Your task to perform on an android device: Clear all items from cart on ebay.com. Search for alienware aurora on ebay.com, select the first entry, and add it to the cart. Image 0: 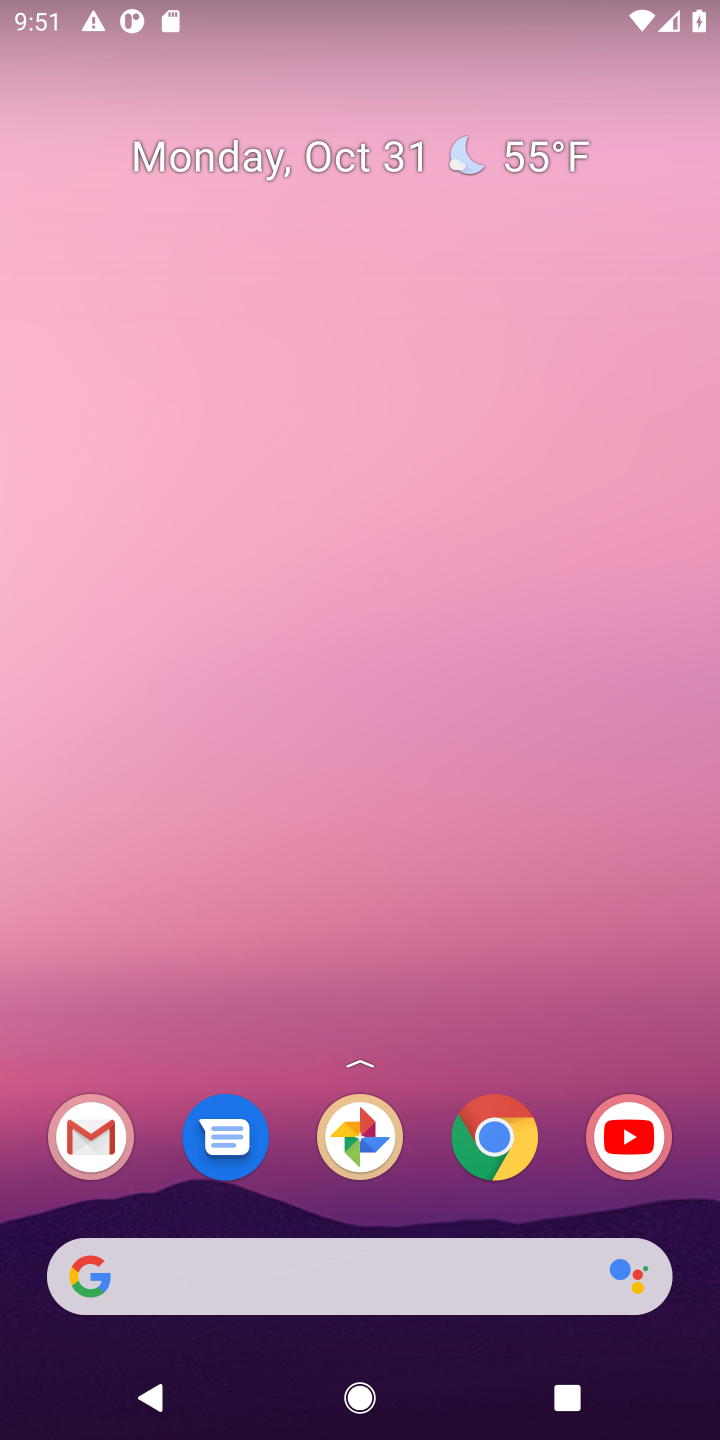
Step 0: click (501, 1148)
Your task to perform on an android device: Clear all items from cart on ebay.com. Search for alienware aurora on ebay.com, select the first entry, and add it to the cart. Image 1: 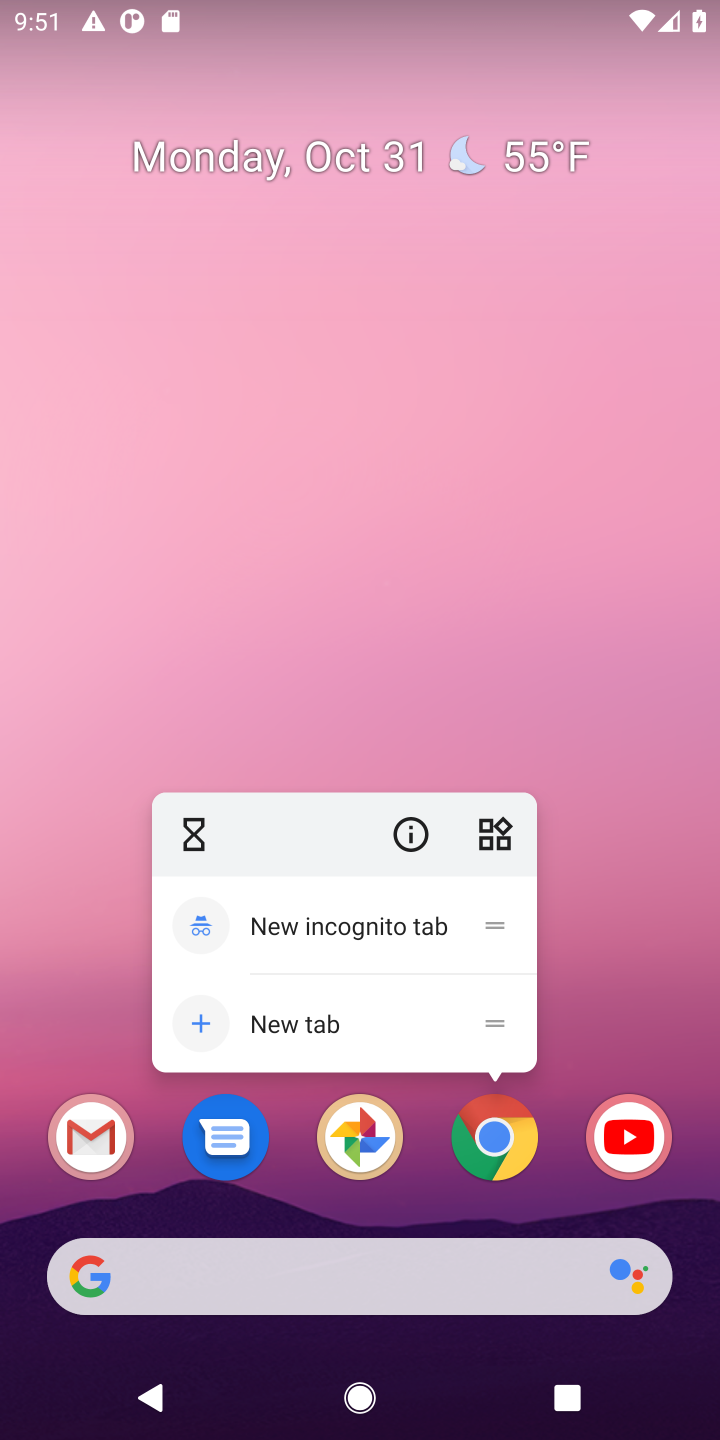
Step 1: click (501, 1148)
Your task to perform on an android device: Clear all items from cart on ebay.com. Search for alienware aurora on ebay.com, select the first entry, and add it to the cart. Image 2: 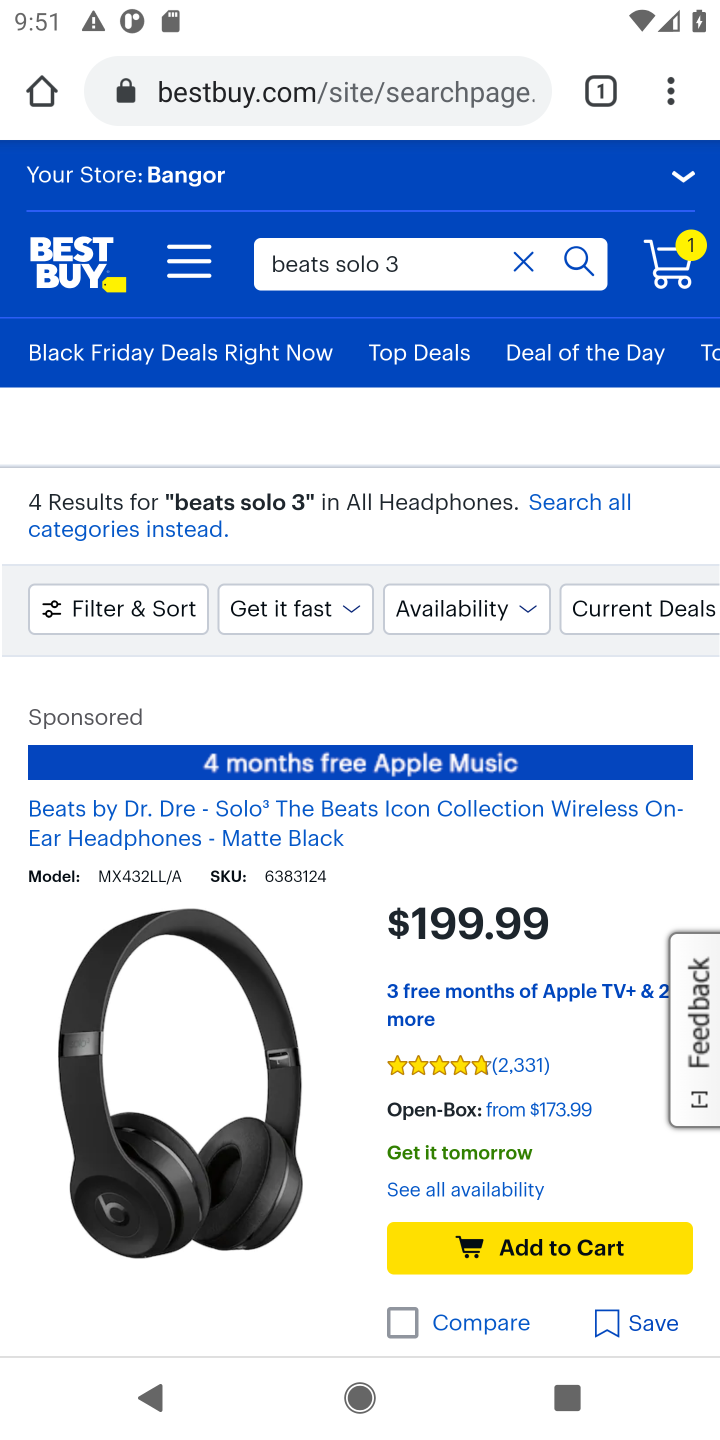
Step 2: click (680, 256)
Your task to perform on an android device: Clear all items from cart on ebay.com. Search for alienware aurora on ebay.com, select the first entry, and add it to the cart. Image 3: 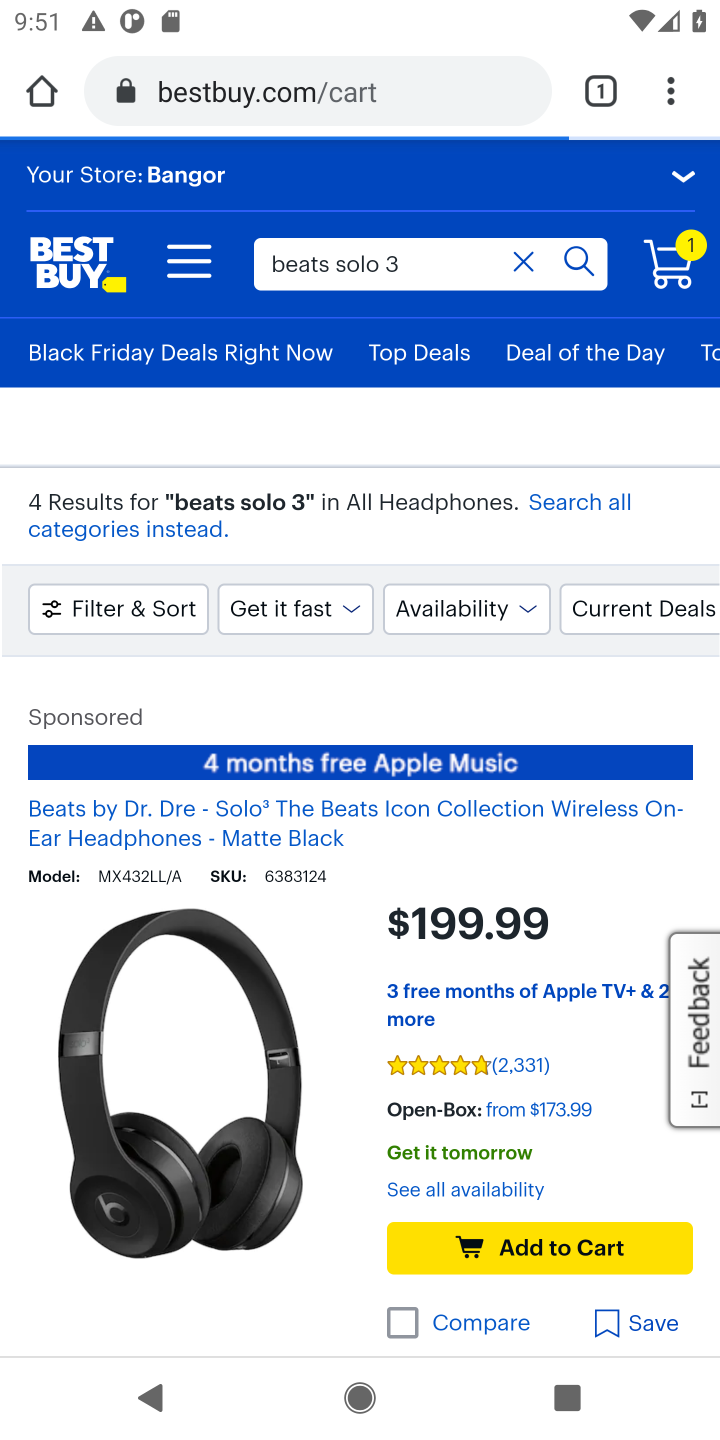
Step 3: click (675, 263)
Your task to perform on an android device: Clear all items from cart on ebay.com. Search for alienware aurora on ebay.com, select the first entry, and add it to the cart. Image 4: 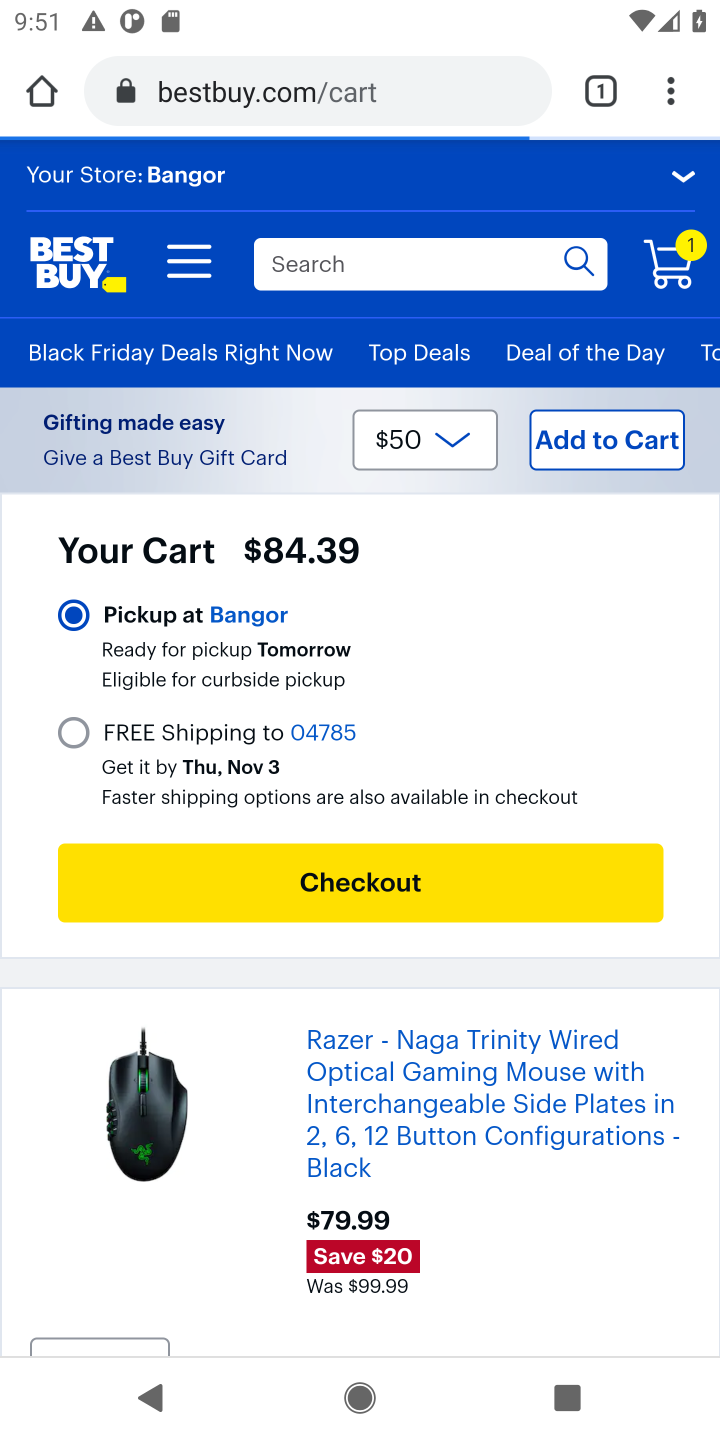
Step 4: drag from (325, 731) to (349, 358)
Your task to perform on an android device: Clear all items from cart on ebay.com. Search for alienware aurora on ebay.com, select the first entry, and add it to the cart. Image 5: 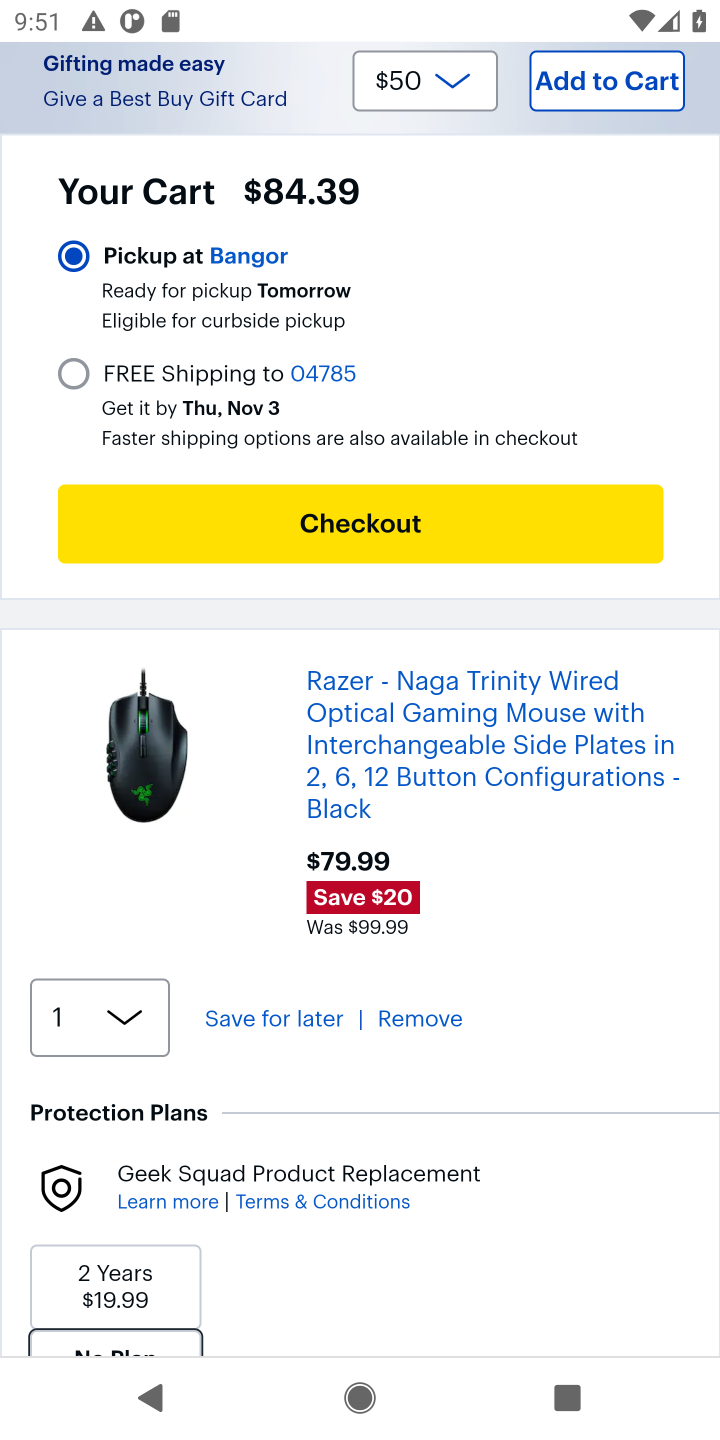
Step 5: drag from (323, 1030) to (365, 519)
Your task to perform on an android device: Clear all items from cart on ebay.com. Search for alienware aurora on ebay.com, select the first entry, and add it to the cart. Image 6: 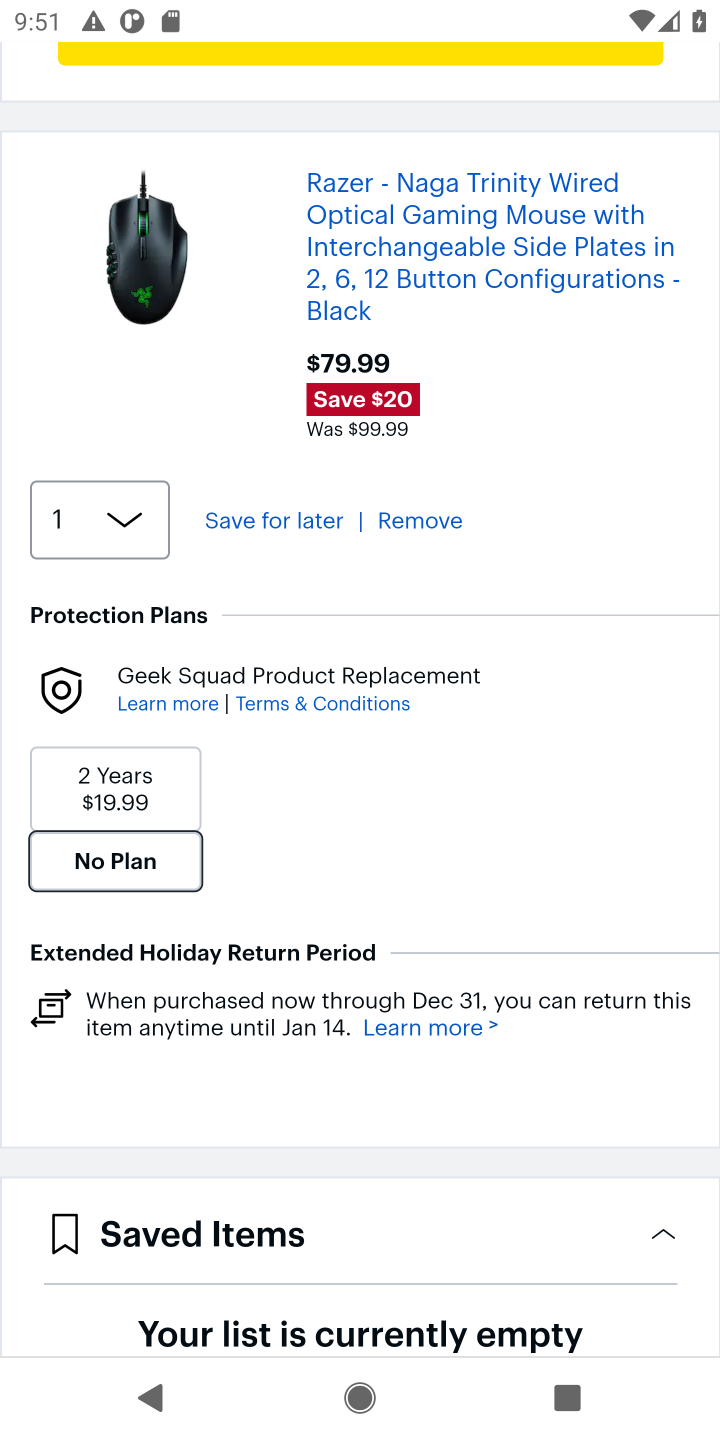
Step 6: click (293, 1001)
Your task to perform on an android device: Clear all items from cart on ebay.com. Search for alienware aurora on ebay.com, select the first entry, and add it to the cart. Image 7: 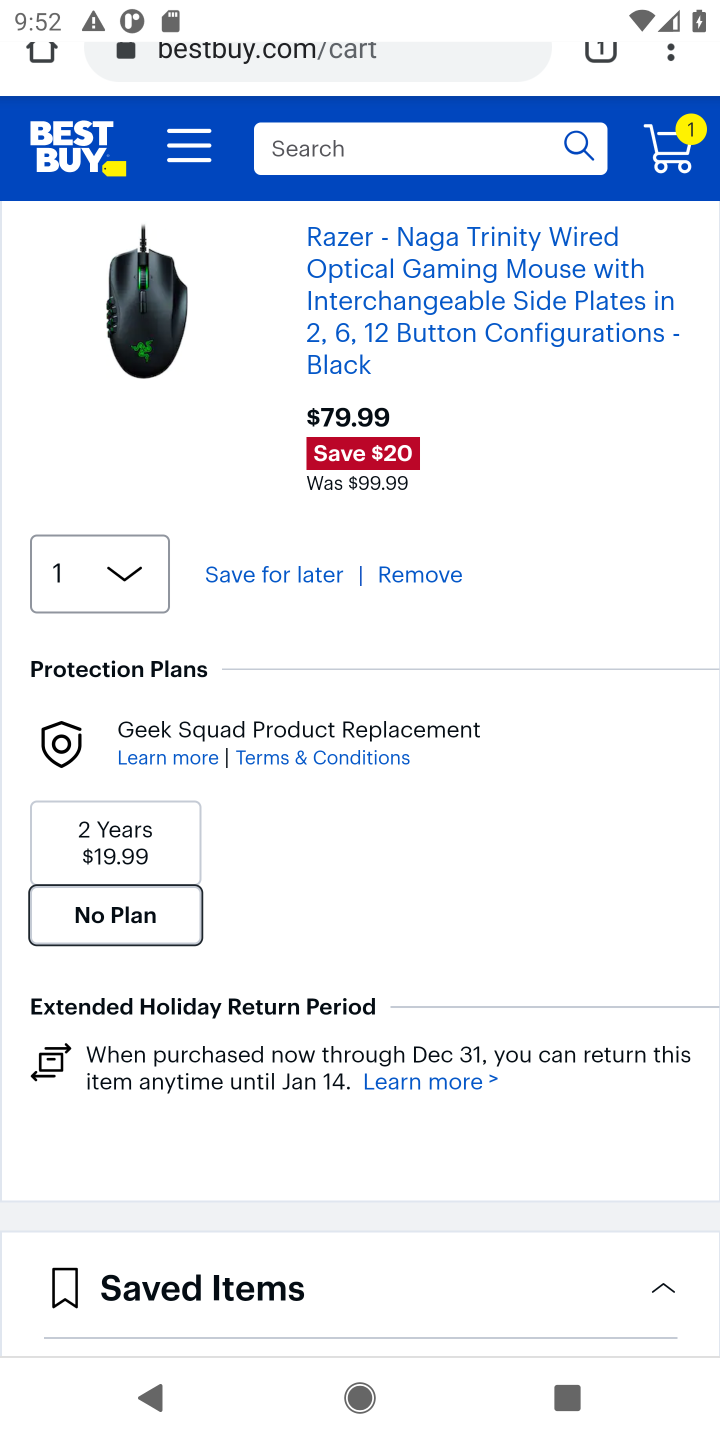
Step 7: click (427, 577)
Your task to perform on an android device: Clear all items from cart on ebay.com. Search for alienware aurora on ebay.com, select the first entry, and add it to the cart. Image 8: 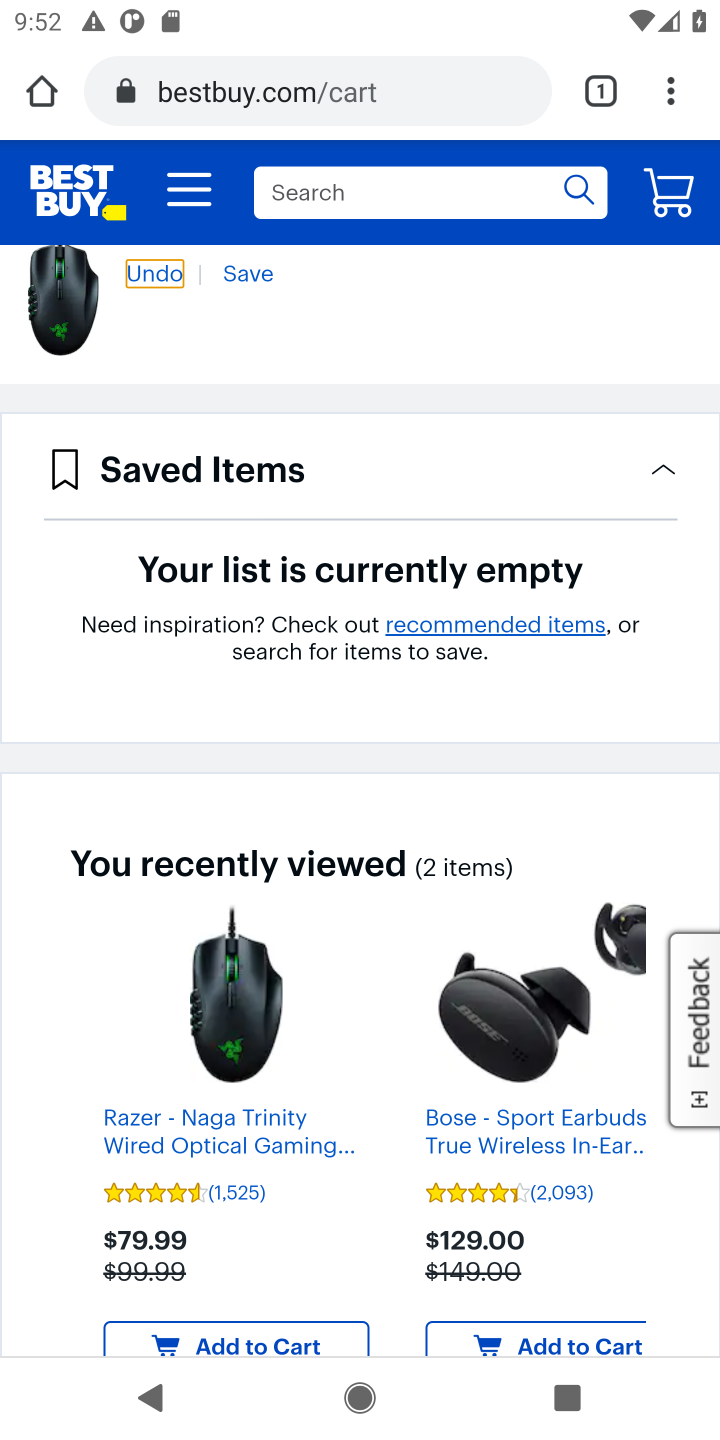
Step 8: click (357, 215)
Your task to perform on an android device: Clear all items from cart on ebay.com. Search for alienware aurora on ebay.com, select the first entry, and add it to the cart. Image 9: 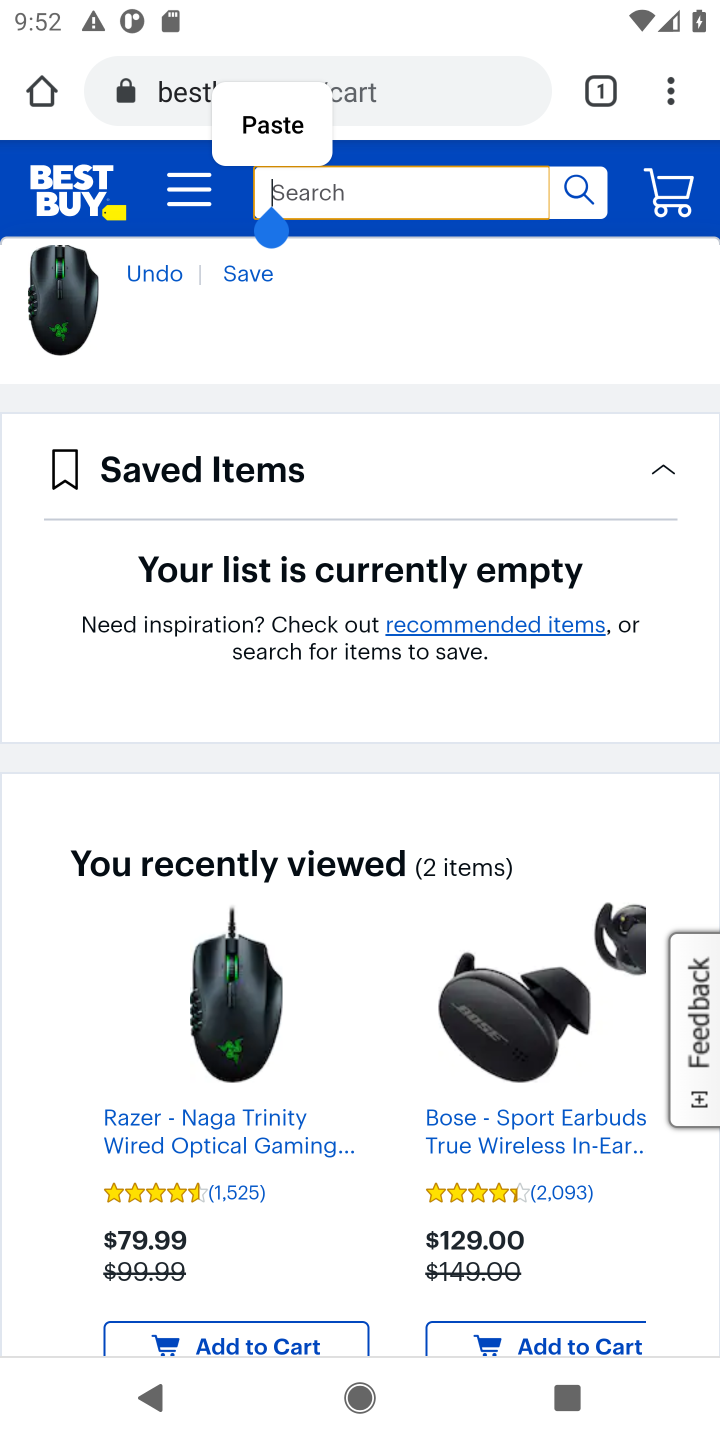
Step 9: type "alienware aurora"
Your task to perform on an android device: Clear all items from cart on ebay.com. Search for alienware aurora on ebay.com, select the first entry, and add it to the cart. Image 10: 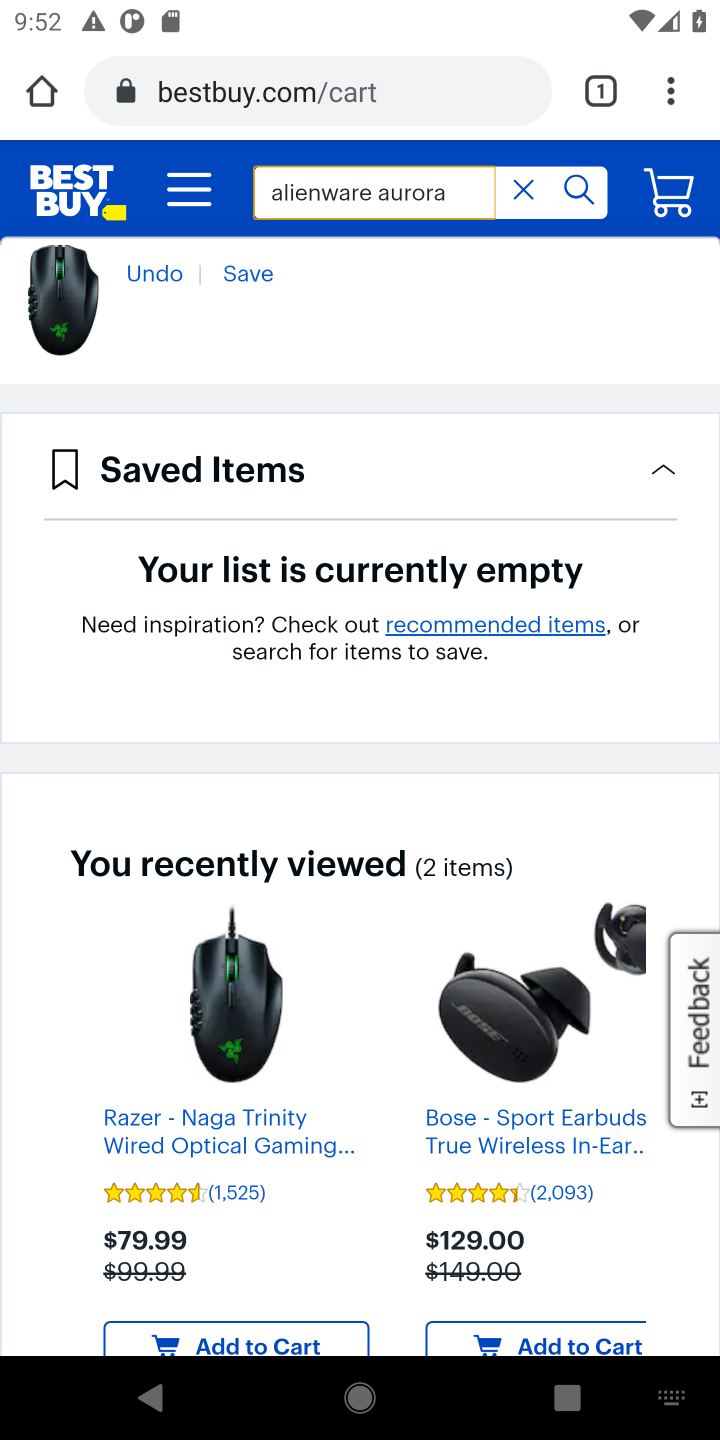
Step 10: click (580, 192)
Your task to perform on an android device: Clear all items from cart on ebay.com. Search for alienware aurora on ebay.com, select the first entry, and add it to the cart. Image 11: 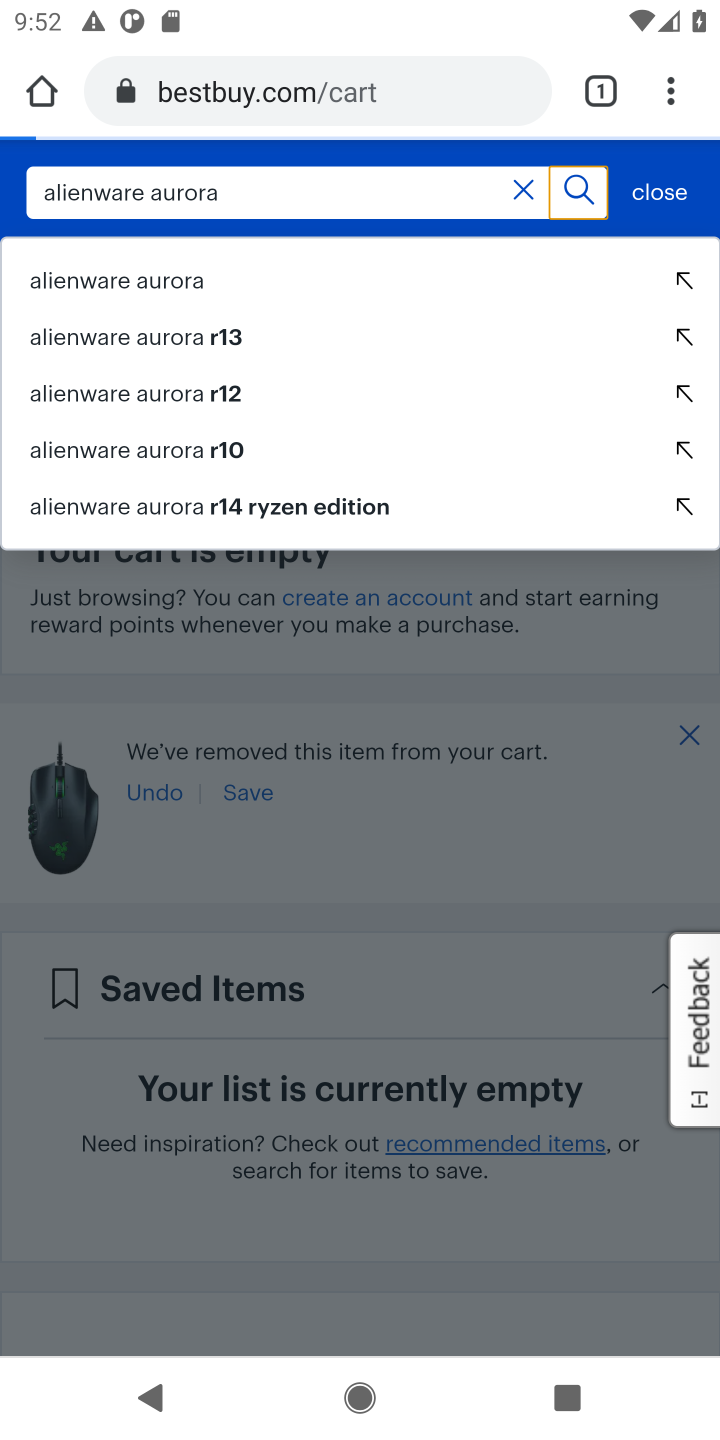
Step 11: click (186, 278)
Your task to perform on an android device: Clear all items from cart on ebay.com. Search for alienware aurora on ebay.com, select the first entry, and add it to the cart. Image 12: 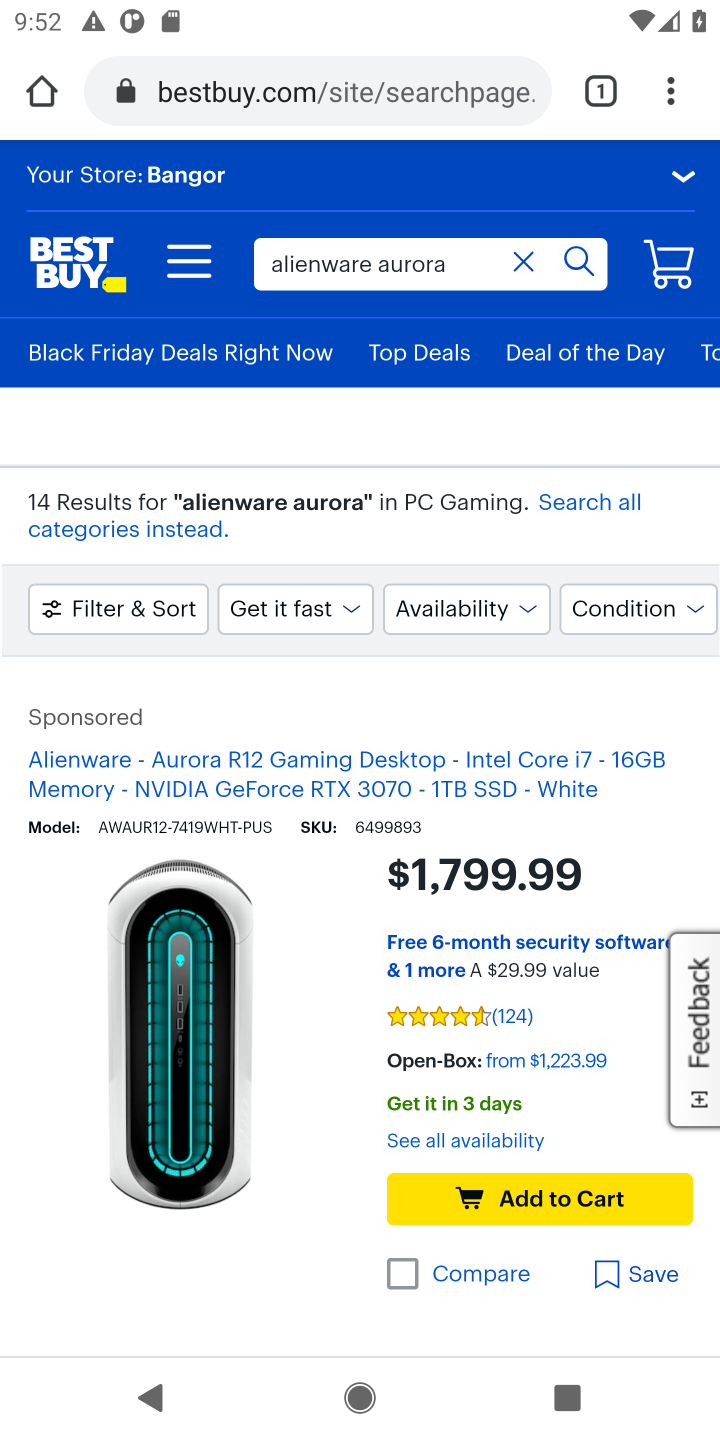
Step 12: click (442, 1022)
Your task to perform on an android device: Clear all items from cart on ebay.com. Search for alienware aurora on ebay.com, select the first entry, and add it to the cart. Image 13: 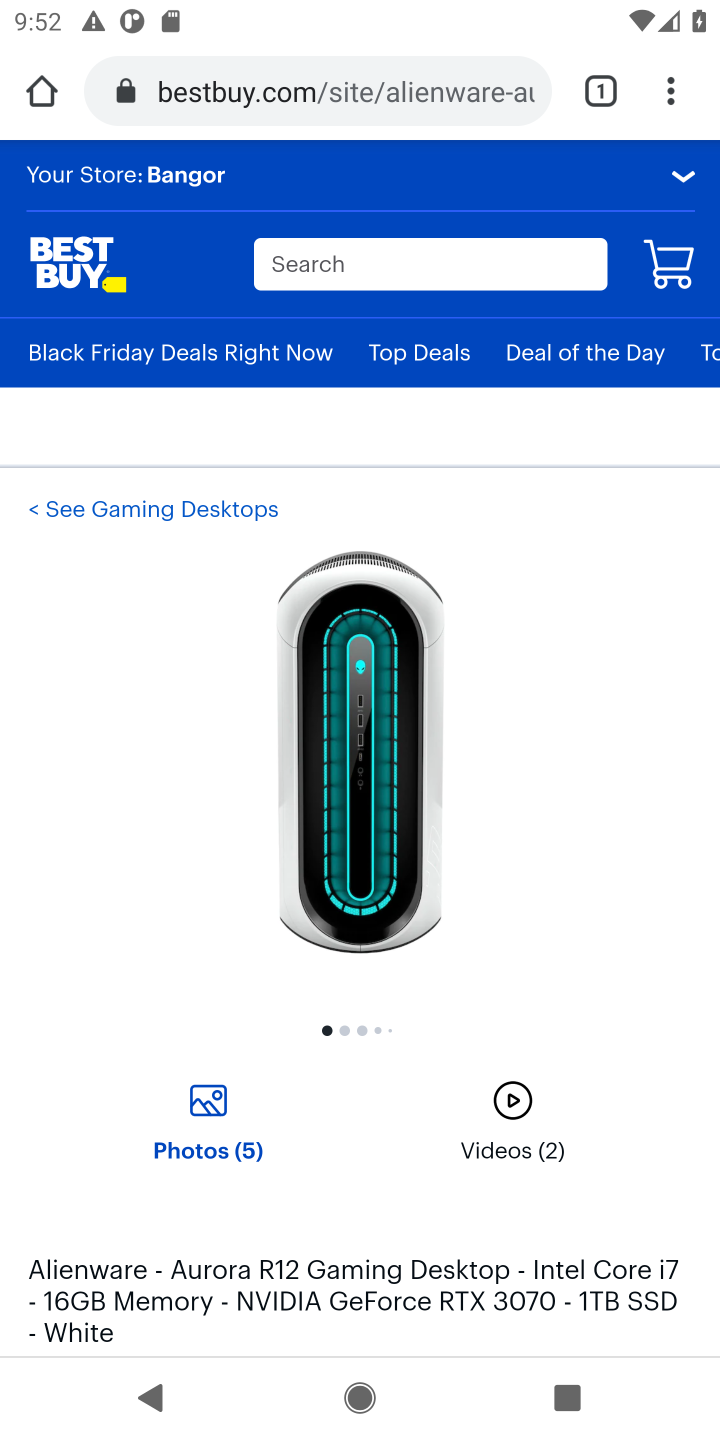
Step 13: drag from (350, 1097) to (374, 363)
Your task to perform on an android device: Clear all items from cart on ebay.com. Search for alienware aurora on ebay.com, select the first entry, and add it to the cart. Image 14: 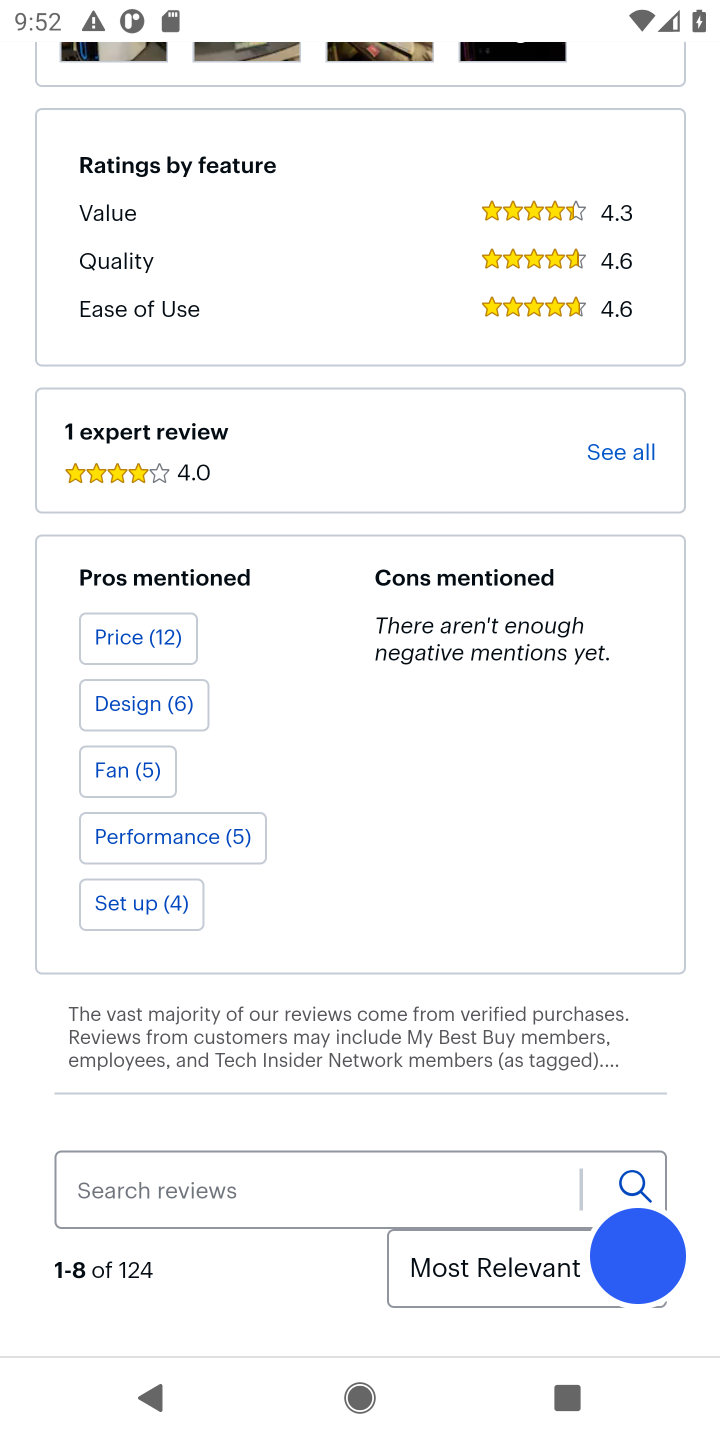
Step 14: drag from (338, 1026) to (320, 355)
Your task to perform on an android device: Clear all items from cart on ebay.com. Search for alienware aurora on ebay.com, select the first entry, and add it to the cart. Image 15: 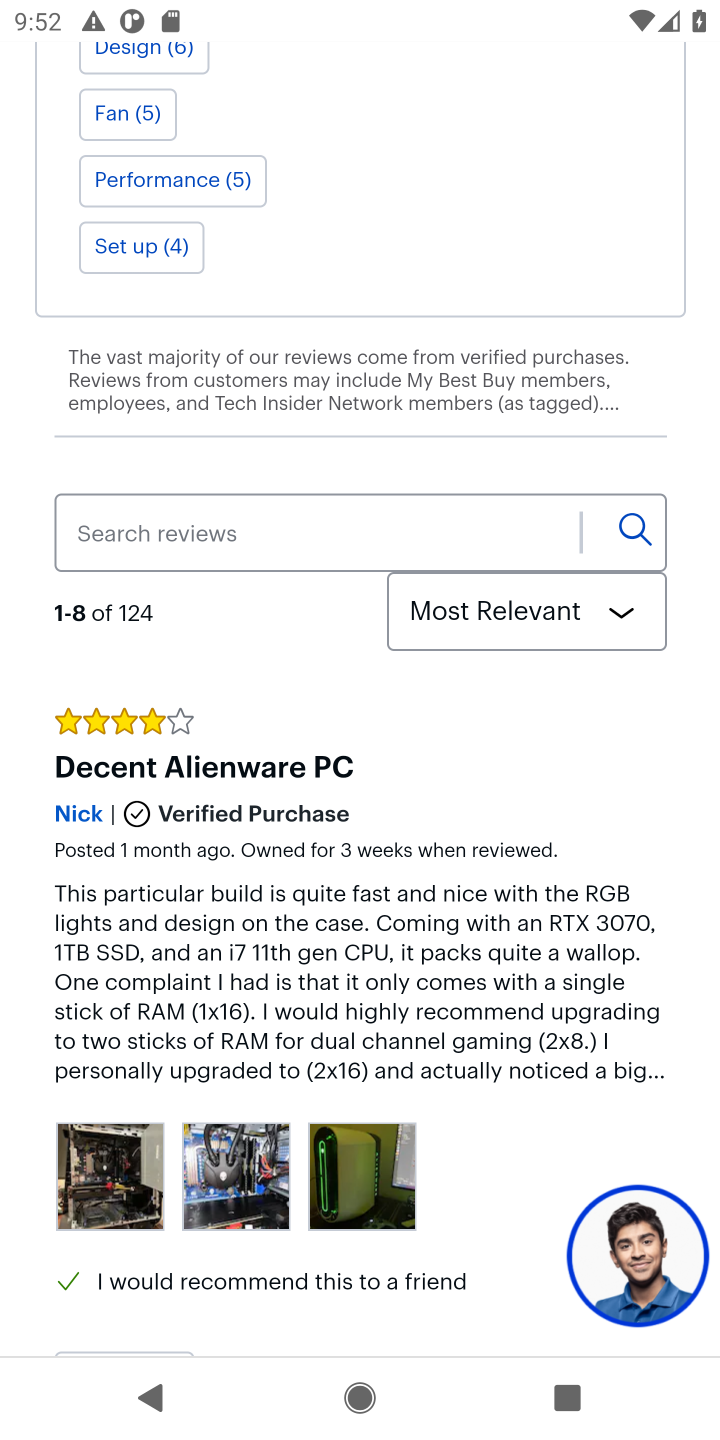
Step 15: drag from (330, 746) to (357, 266)
Your task to perform on an android device: Clear all items from cart on ebay.com. Search for alienware aurora on ebay.com, select the first entry, and add it to the cart. Image 16: 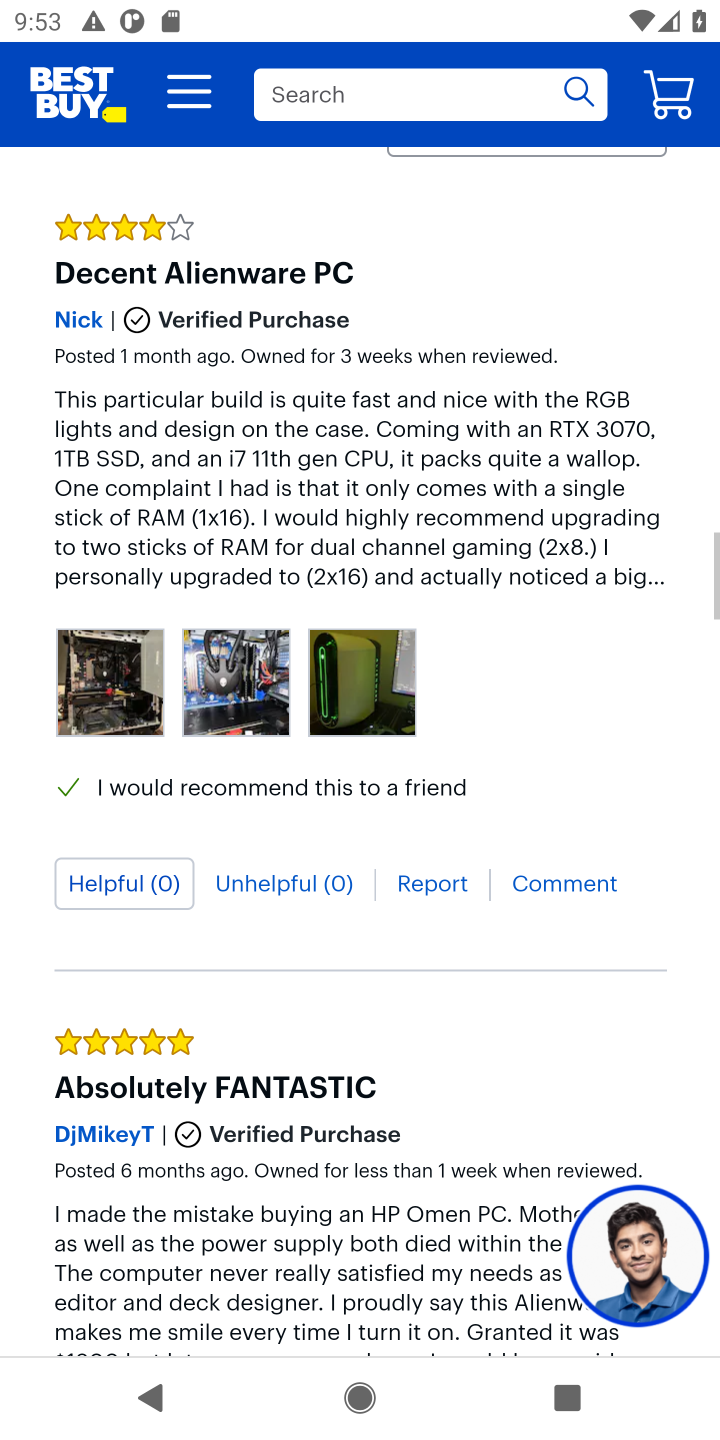
Step 16: drag from (336, 1020) to (338, 467)
Your task to perform on an android device: Clear all items from cart on ebay.com. Search for alienware aurora on ebay.com, select the first entry, and add it to the cart. Image 17: 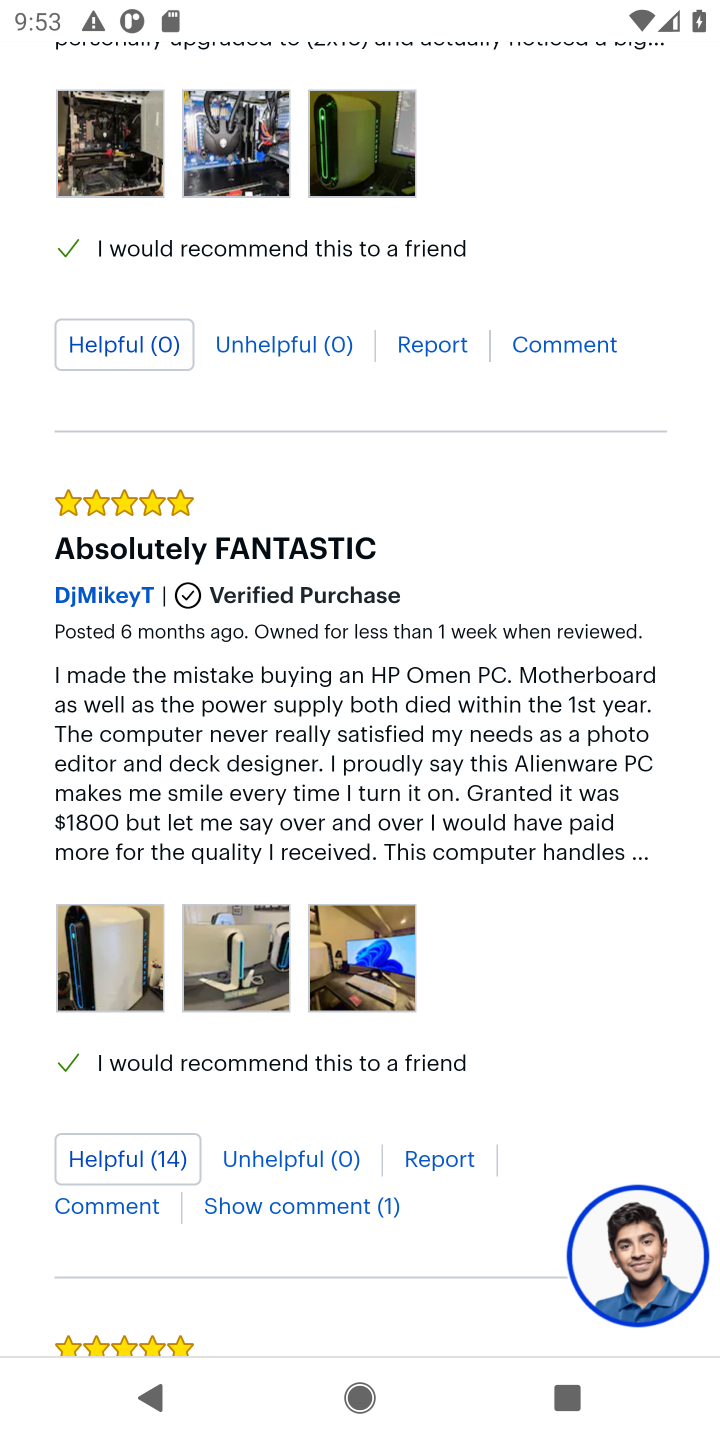
Step 17: drag from (395, 294) to (312, 1208)
Your task to perform on an android device: Clear all items from cart on ebay.com. Search for alienware aurora on ebay.com, select the first entry, and add it to the cart. Image 18: 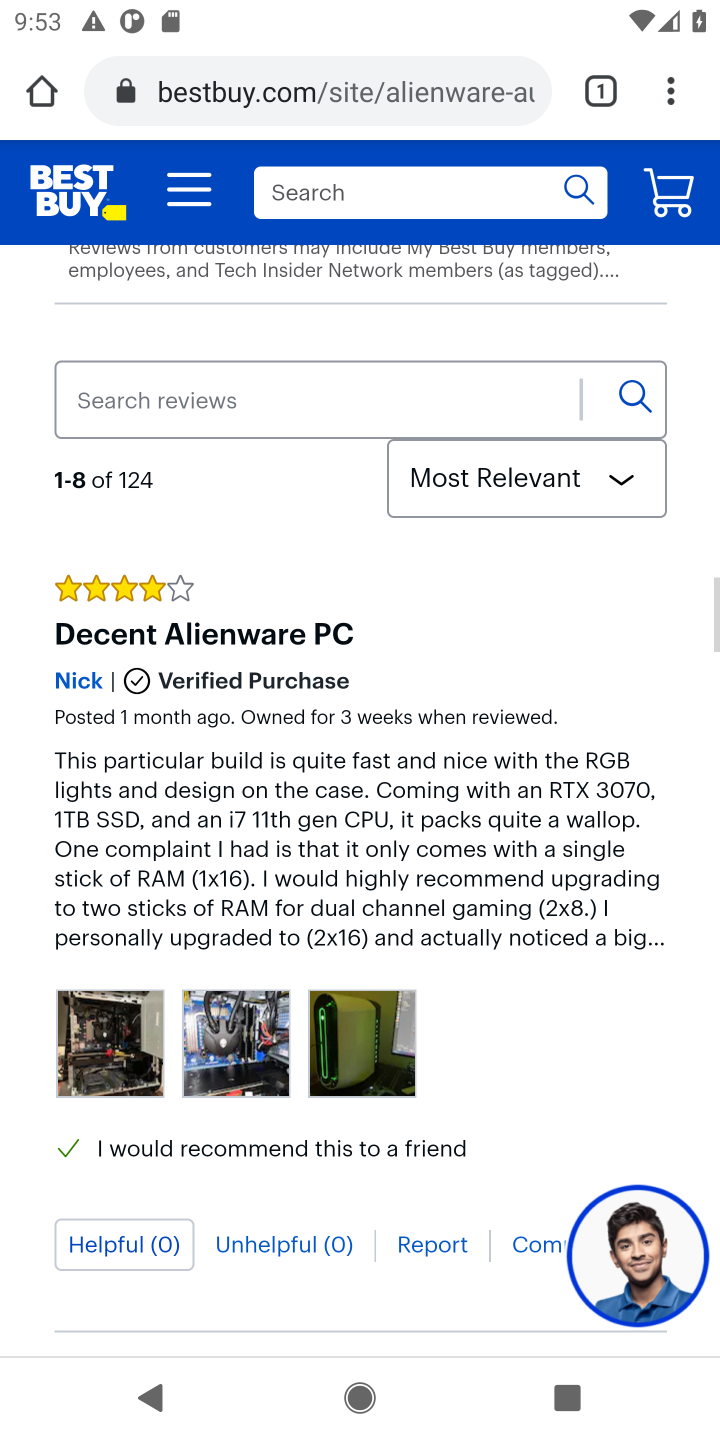
Step 18: drag from (364, 335) to (238, 1026)
Your task to perform on an android device: Clear all items from cart on ebay.com. Search for alienware aurora on ebay.com, select the first entry, and add it to the cart. Image 19: 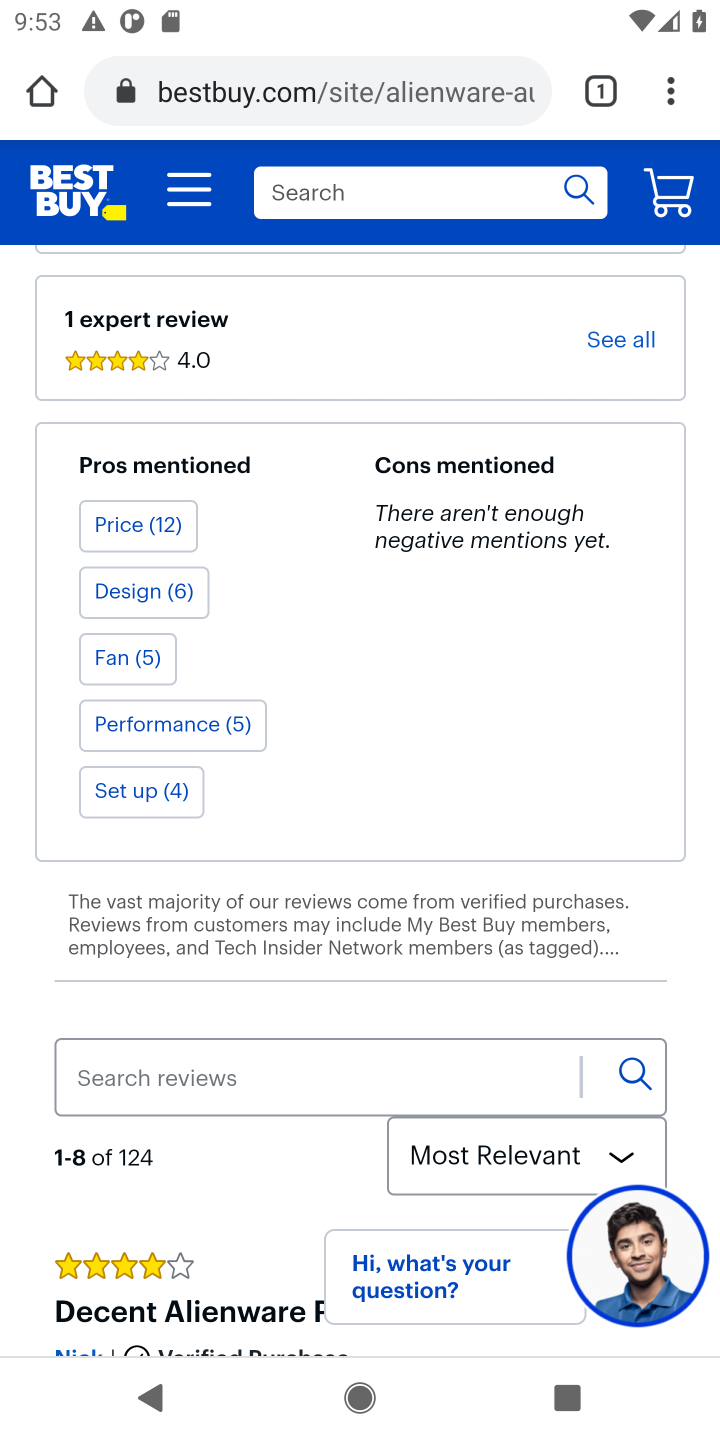
Step 19: drag from (318, 465) to (276, 1072)
Your task to perform on an android device: Clear all items from cart on ebay.com. Search for alienware aurora on ebay.com, select the first entry, and add it to the cart. Image 20: 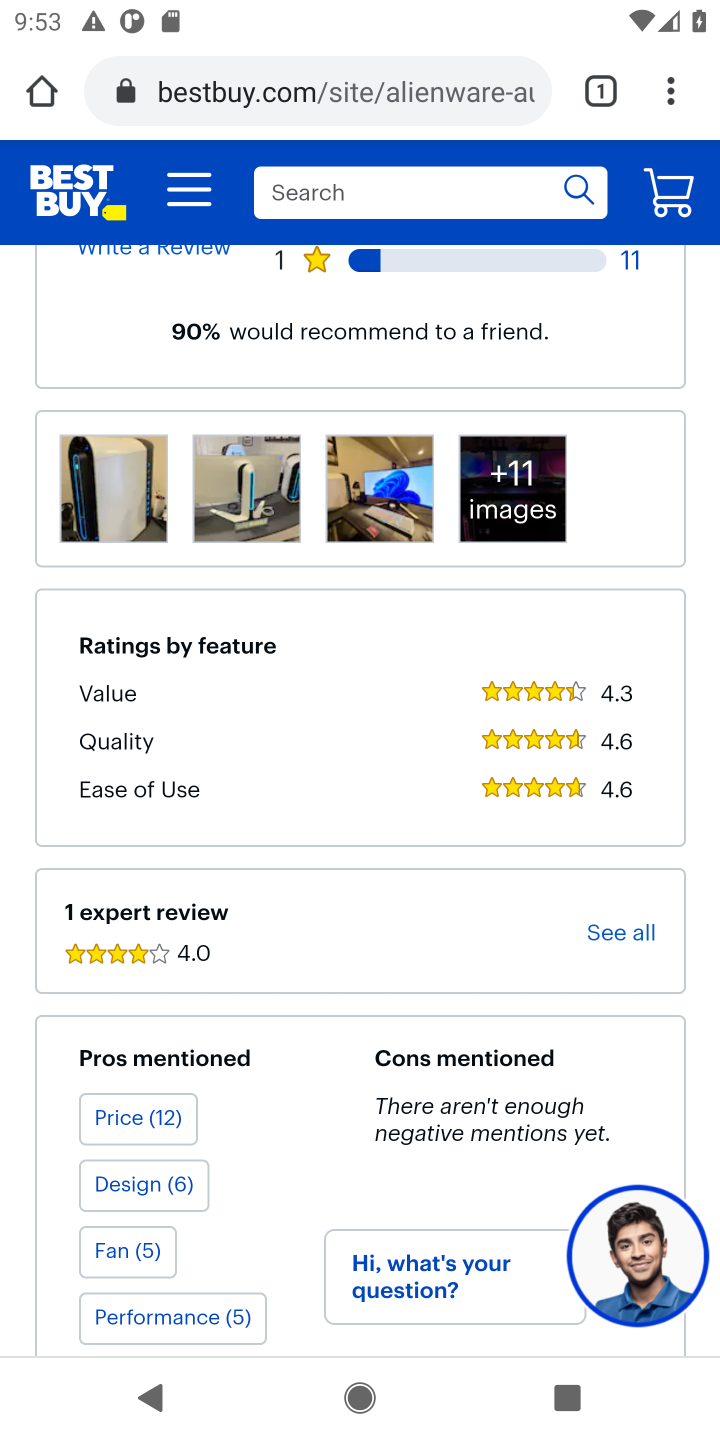
Step 20: drag from (291, 575) to (241, 1123)
Your task to perform on an android device: Clear all items from cart on ebay.com. Search for alienware aurora on ebay.com, select the first entry, and add it to the cart. Image 21: 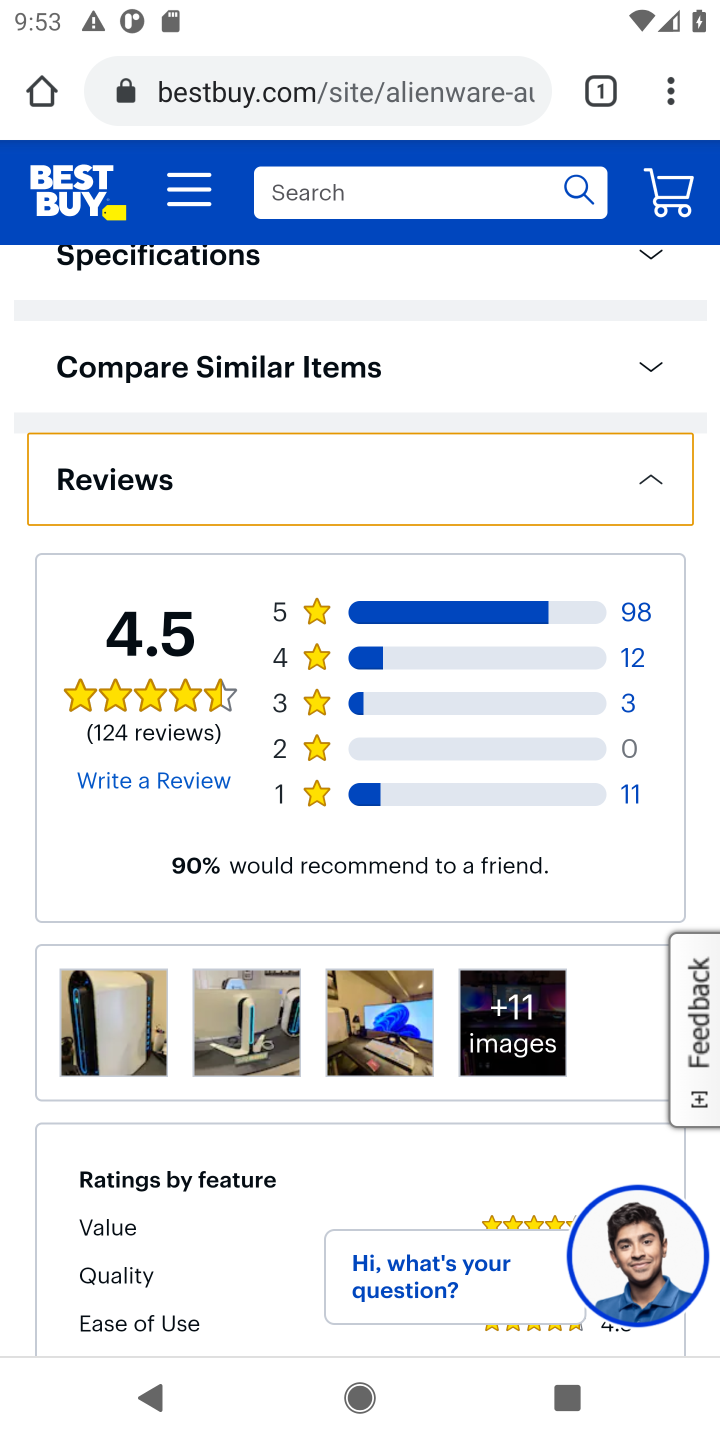
Step 21: drag from (338, 679) to (290, 1073)
Your task to perform on an android device: Clear all items from cart on ebay.com. Search for alienware aurora on ebay.com, select the first entry, and add it to the cart. Image 22: 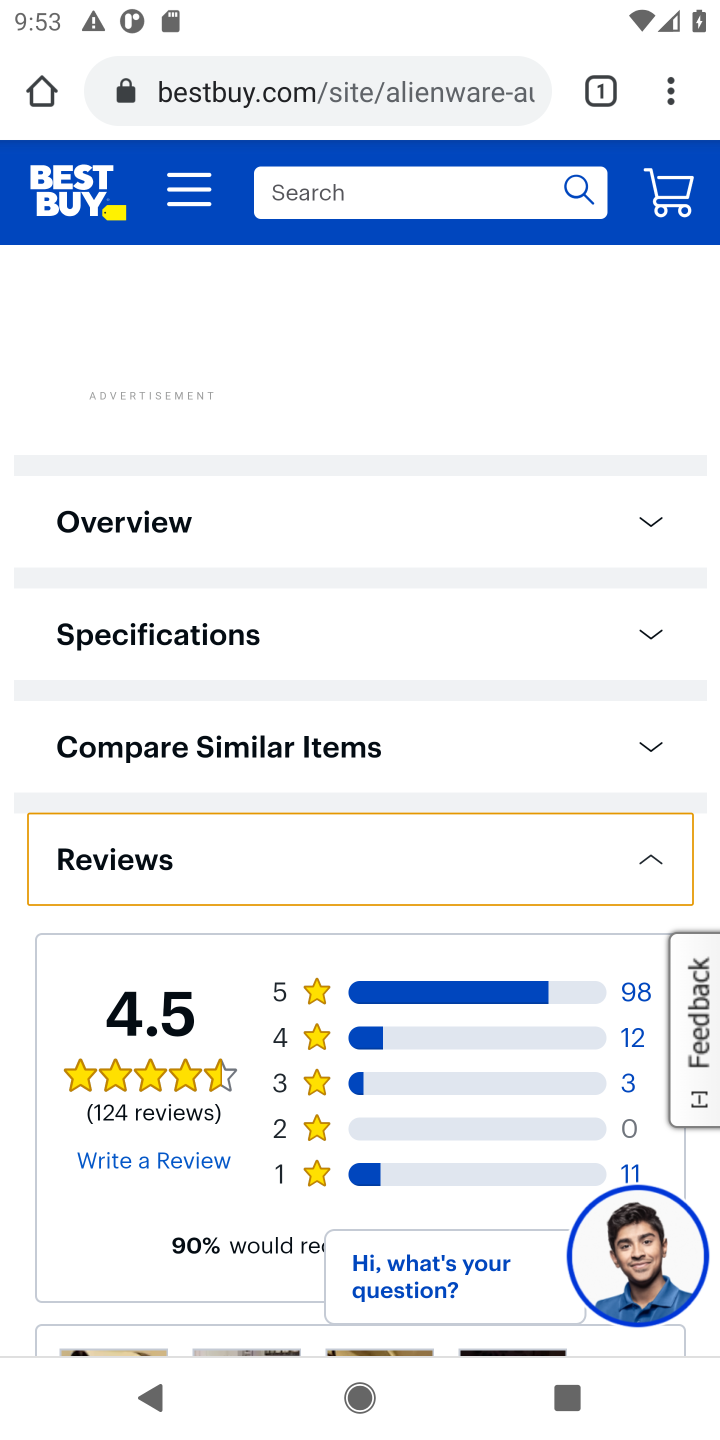
Step 22: drag from (273, 445) to (244, 953)
Your task to perform on an android device: Clear all items from cart on ebay.com. Search for alienware aurora on ebay.com, select the first entry, and add it to the cart. Image 23: 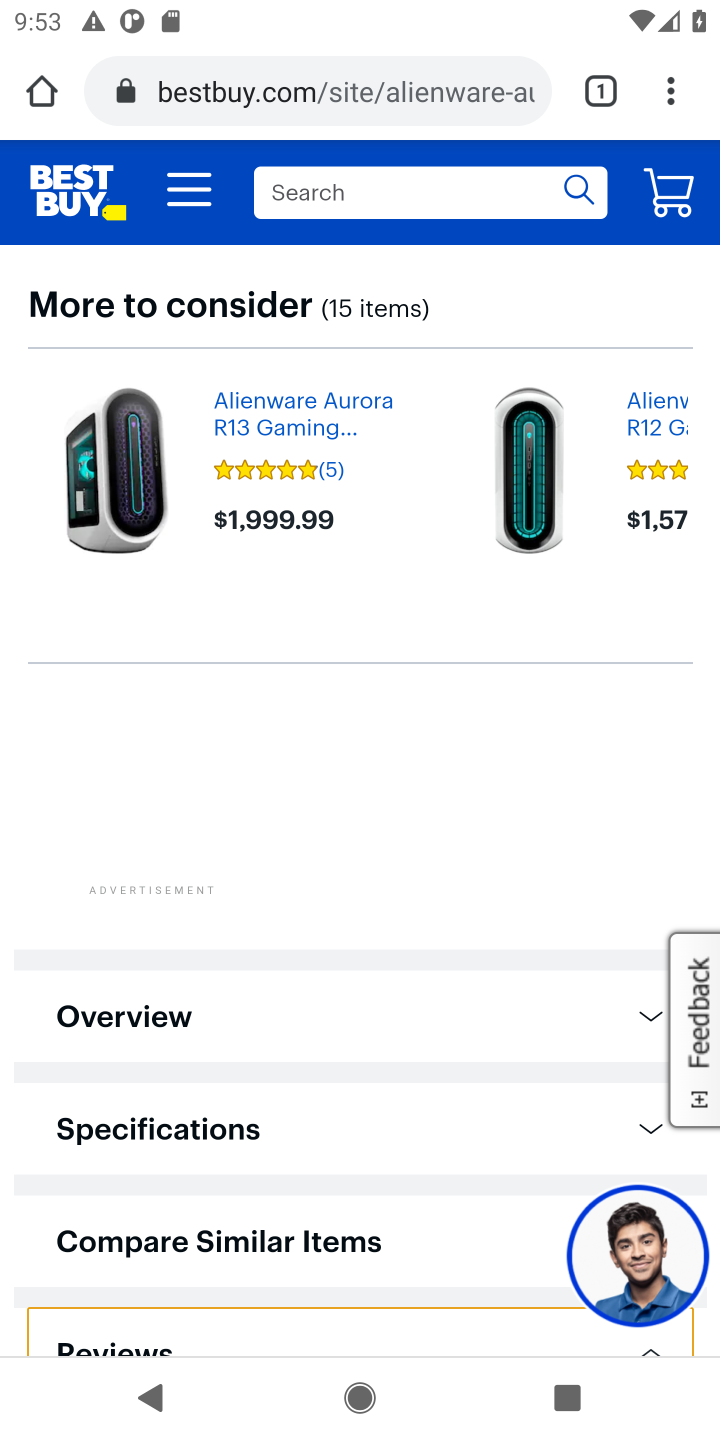
Step 23: drag from (346, 581) to (320, 1164)
Your task to perform on an android device: Clear all items from cart on ebay.com. Search for alienware aurora on ebay.com, select the first entry, and add it to the cart. Image 24: 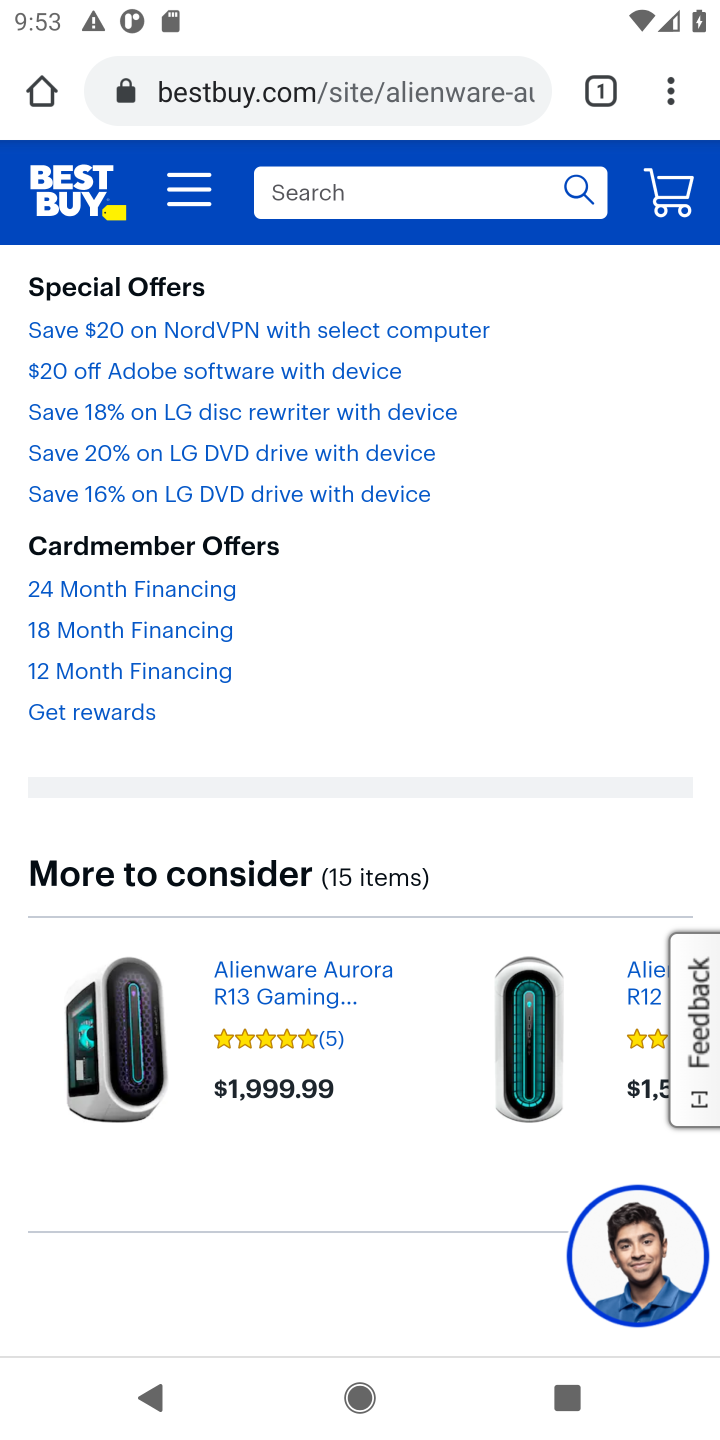
Step 24: drag from (266, 490) to (248, 1160)
Your task to perform on an android device: Clear all items from cart on ebay.com. Search for alienware aurora on ebay.com, select the first entry, and add it to the cart. Image 25: 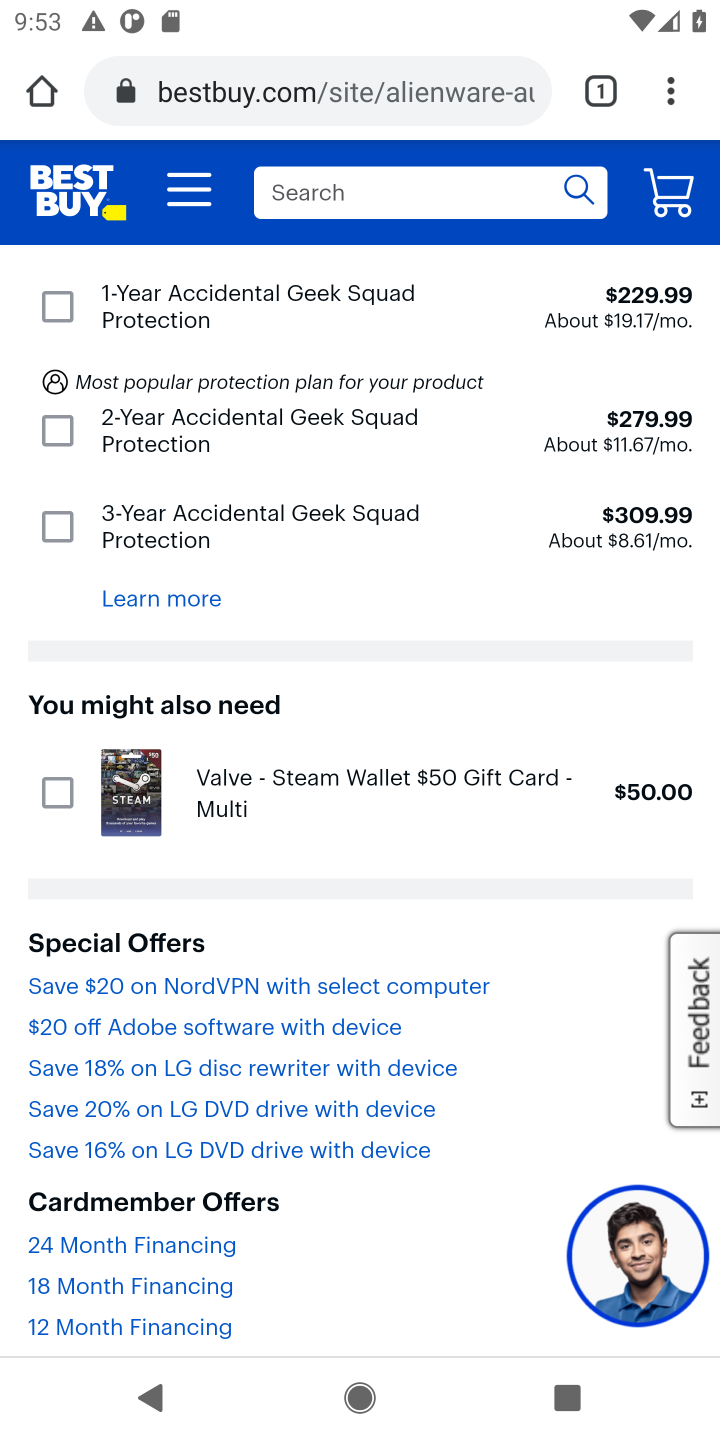
Step 25: drag from (349, 459) to (370, 995)
Your task to perform on an android device: Clear all items from cart on ebay.com. Search for alienware aurora on ebay.com, select the first entry, and add it to the cart. Image 26: 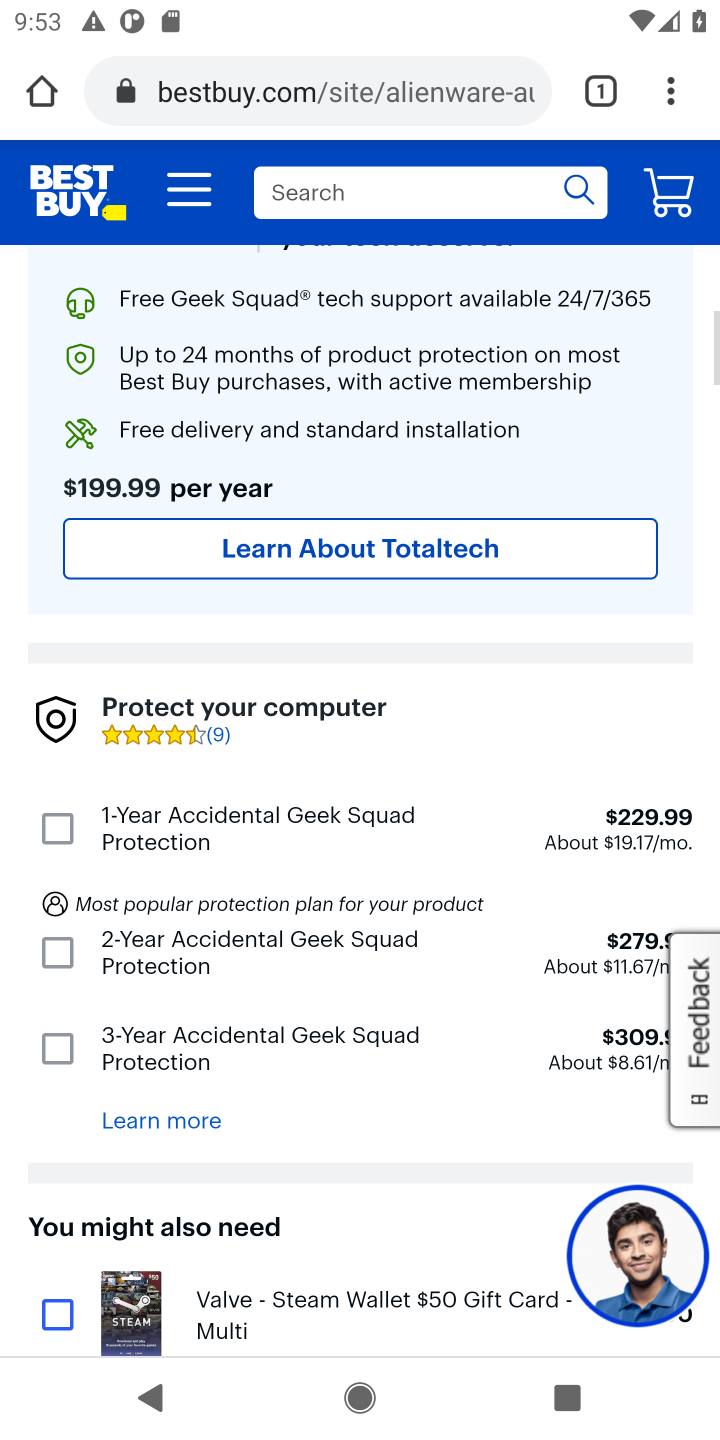
Step 26: drag from (313, 490) to (296, 1014)
Your task to perform on an android device: Clear all items from cart on ebay.com. Search for alienware aurora on ebay.com, select the first entry, and add it to the cart. Image 27: 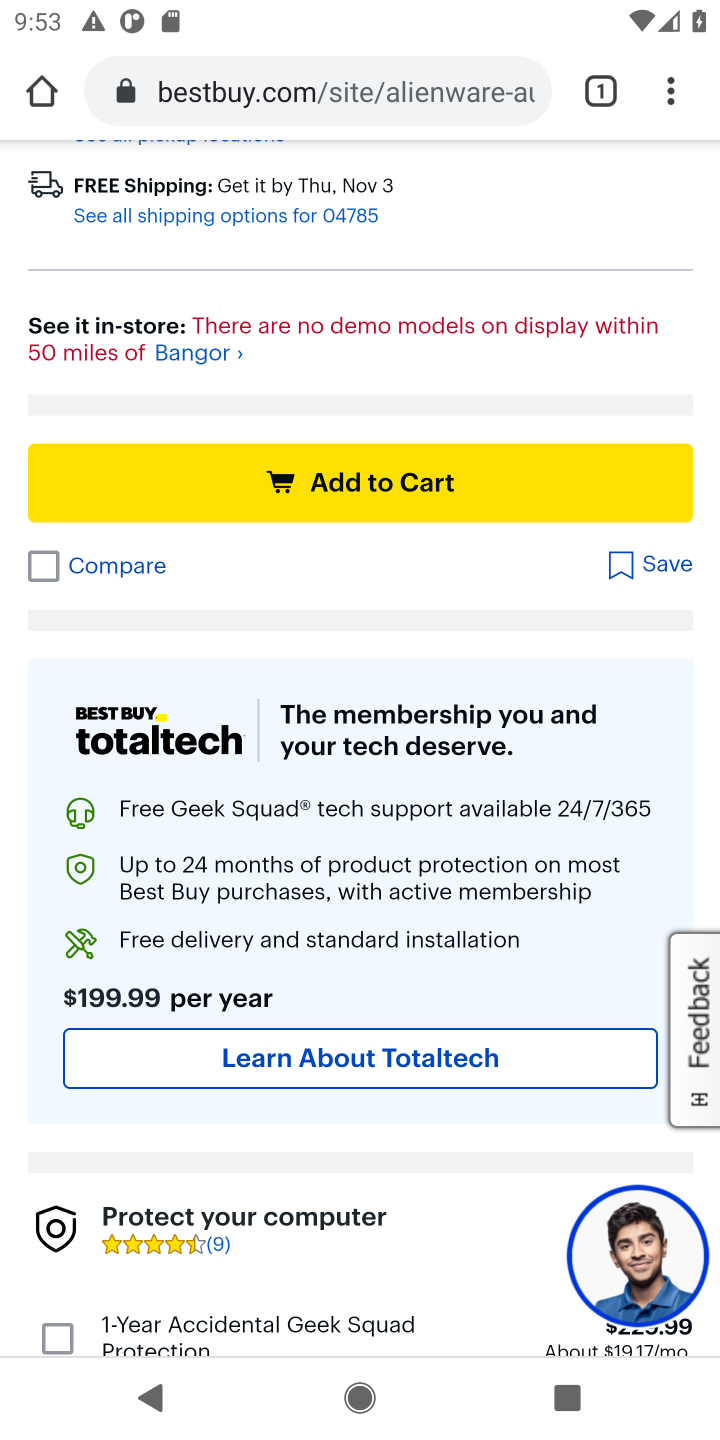
Step 27: click (330, 491)
Your task to perform on an android device: Clear all items from cart on ebay.com. Search for alienware aurora on ebay.com, select the first entry, and add it to the cart. Image 28: 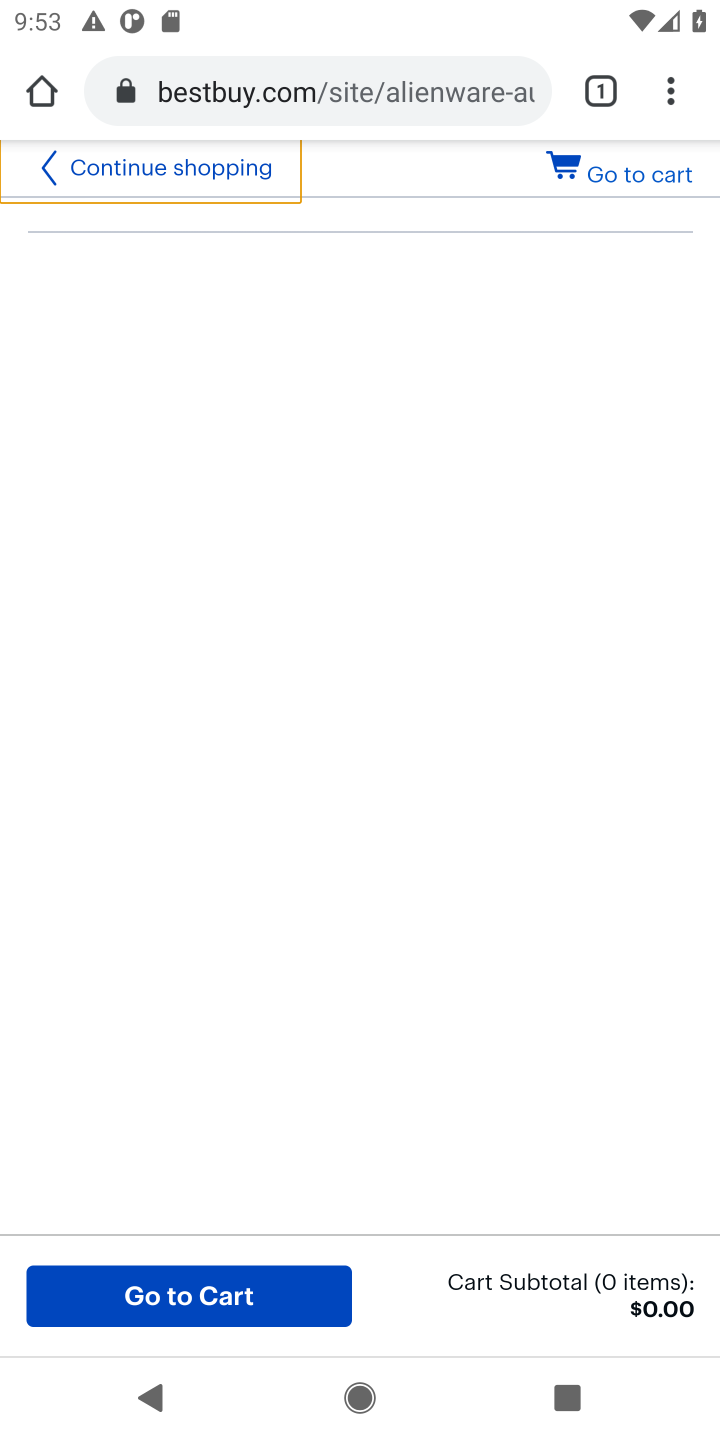
Step 28: task complete